Your task to perform on an android device: snooze an email in the gmail app Image 0: 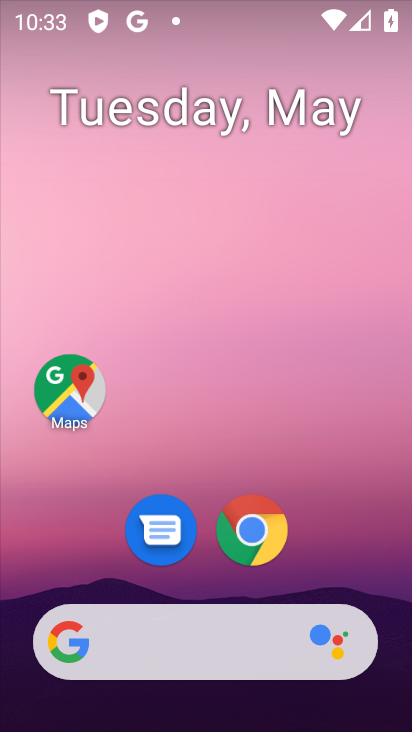
Step 0: drag from (309, 375) to (334, 131)
Your task to perform on an android device: snooze an email in the gmail app Image 1: 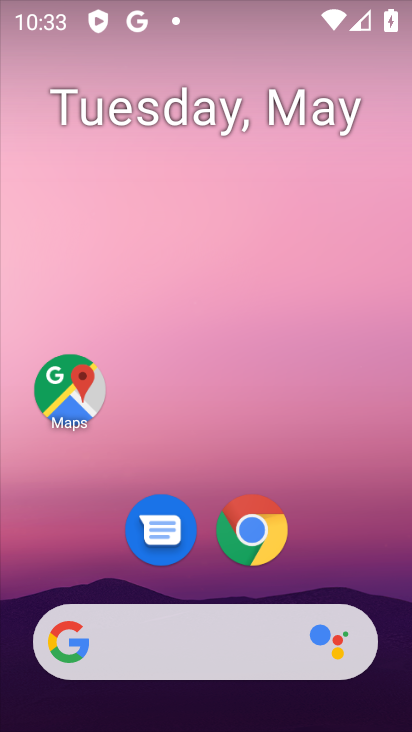
Step 1: drag from (319, 521) to (368, 163)
Your task to perform on an android device: snooze an email in the gmail app Image 2: 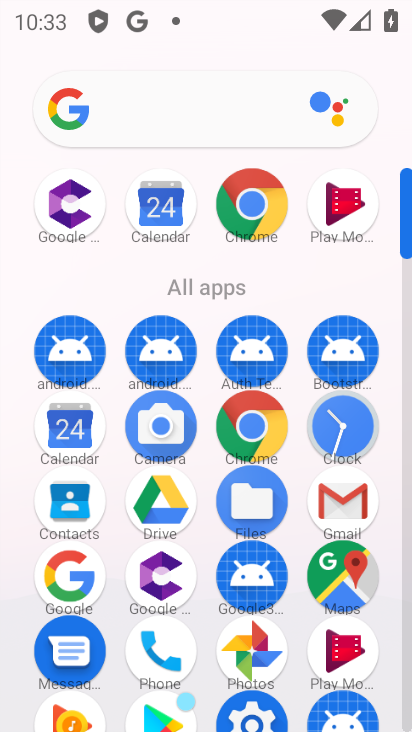
Step 2: click (345, 509)
Your task to perform on an android device: snooze an email in the gmail app Image 3: 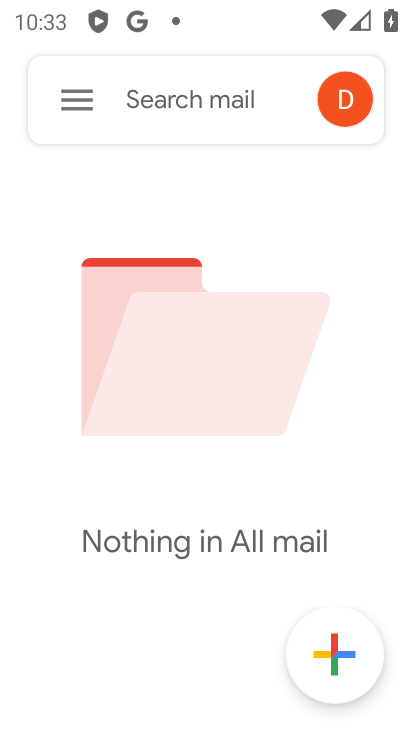
Step 3: click (67, 93)
Your task to perform on an android device: snooze an email in the gmail app Image 4: 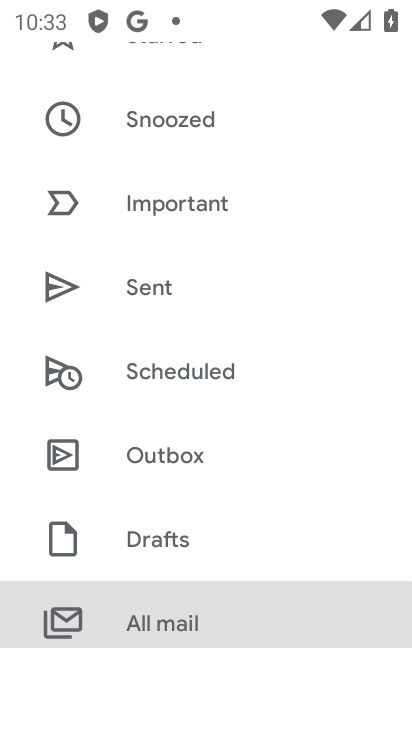
Step 4: click (153, 628)
Your task to perform on an android device: snooze an email in the gmail app Image 5: 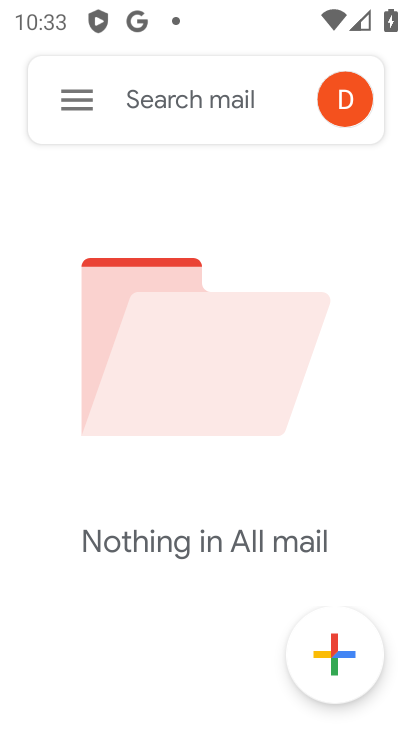
Step 5: task complete